Your task to perform on an android device: Open network settings Image 0: 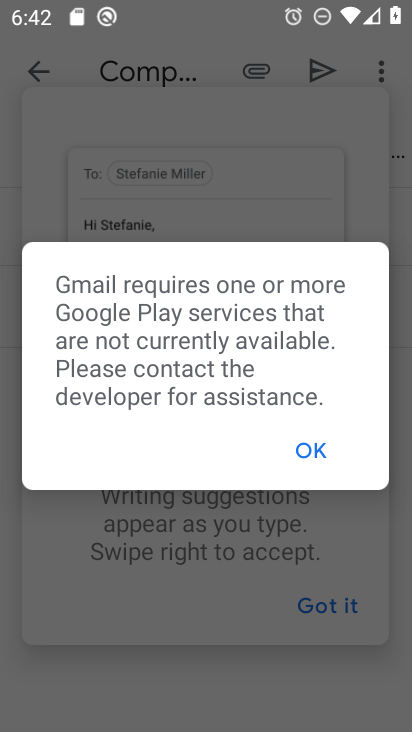
Step 0: drag from (392, 647) to (410, 363)
Your task to perform on an android device: Open network settings Image 1: 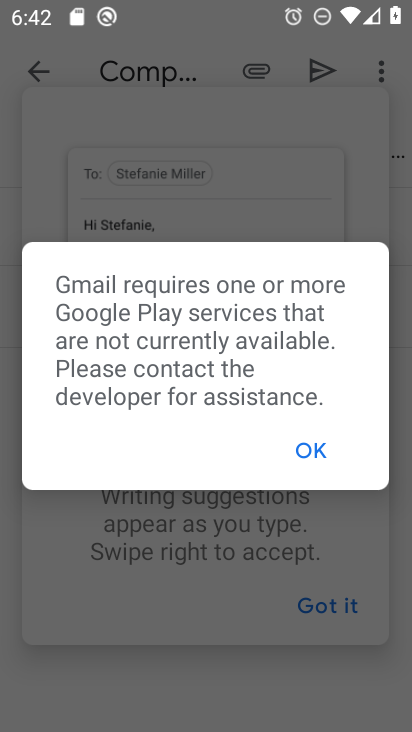
Step 1: press home button
Your task to perform on an android device: Open network settings Image 2: 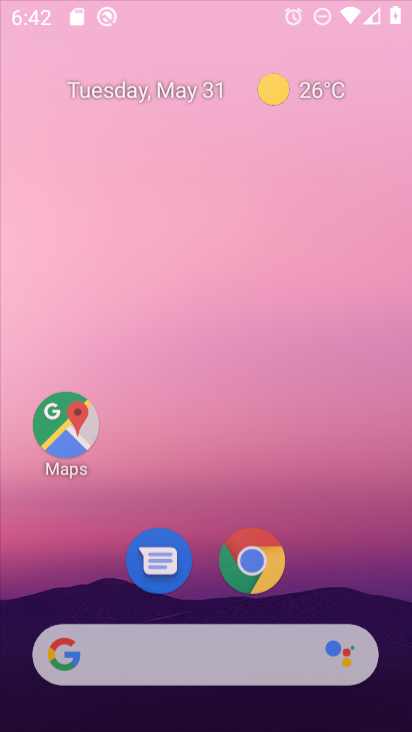
Step 2: drag from (351, 659) to (358, 298)
Your task to perform on an android device: Open network settings Image 3: 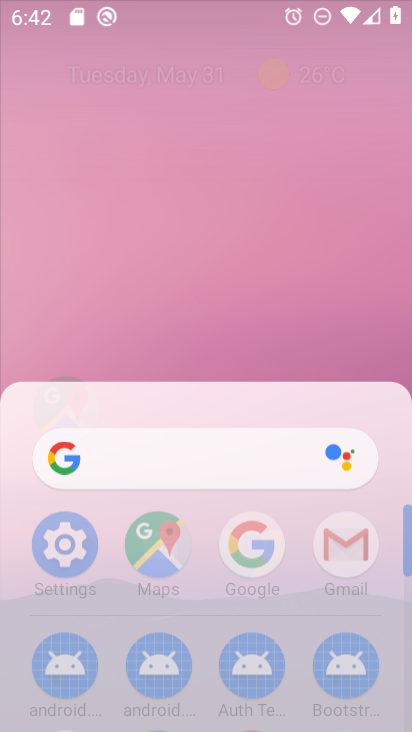
Step 3: click (305, 67)
Your task to perform on an android device: Open network settings Image 4: 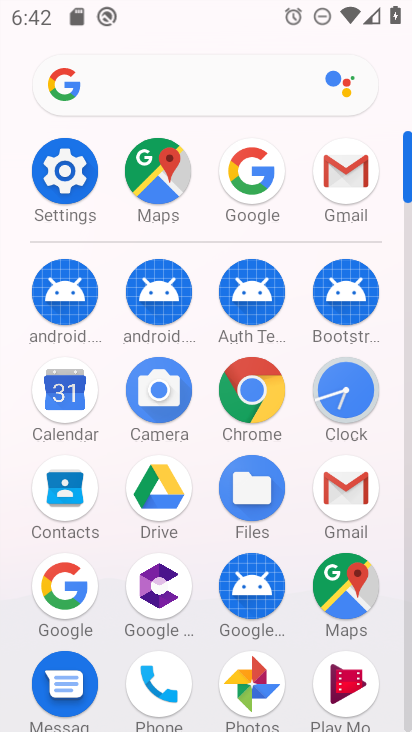
Step 4: click (80, 167)
Your task to perform on an android device: Open network settings Image 5: 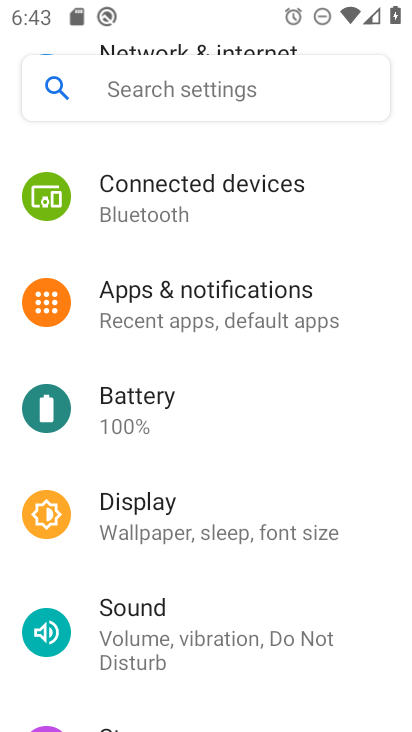
Step 5: drag from (209, 149) to (187, 657)
Your task to perform on an android device: Open network settings Image 6: 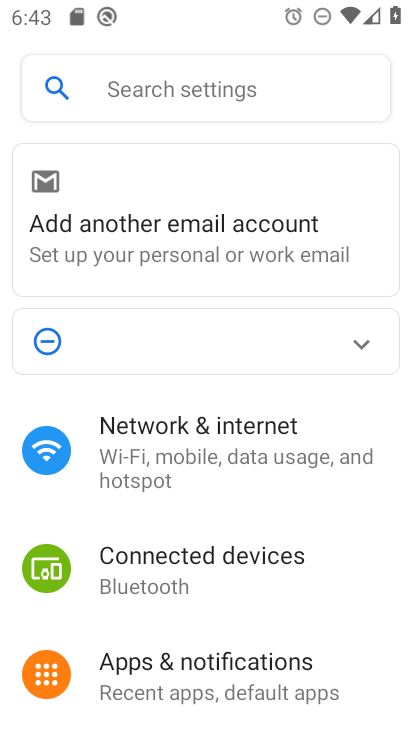
Step 6: click (217, 473)
Your task to perform on an android device: Open network settings Image 7: 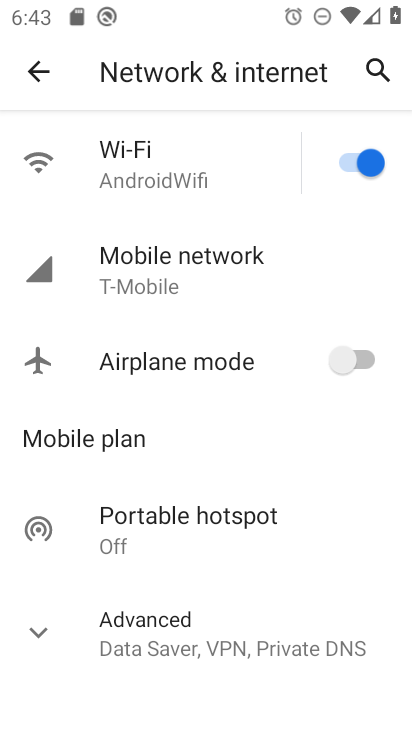
Step 7: task complete